Your task to perform on an android device: star an email in the gmail app Image 0: 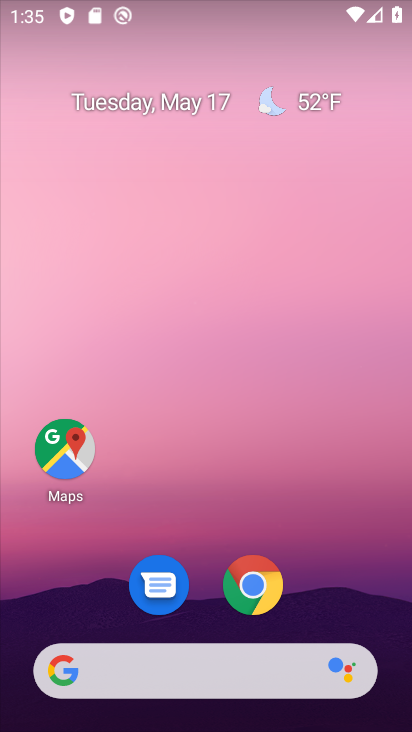
Step 0: drag from (253, 511) to (266, 70)
Your task to perform on an android device: star an email in the gmail app Image 1: 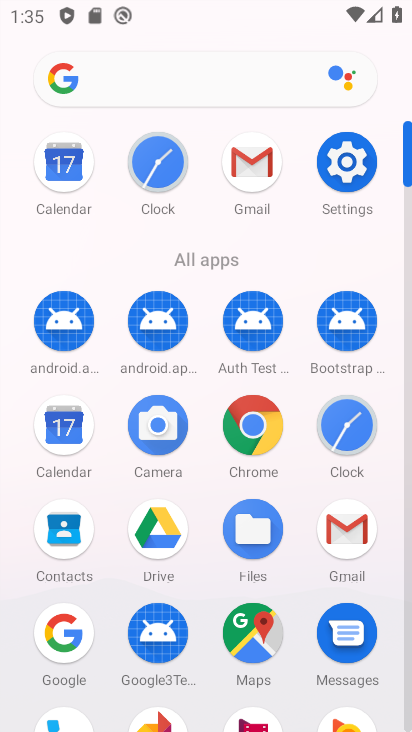
Step 1: click (262, 172)
Your task to perform on an android device: star an email in the gmail app Image 2: 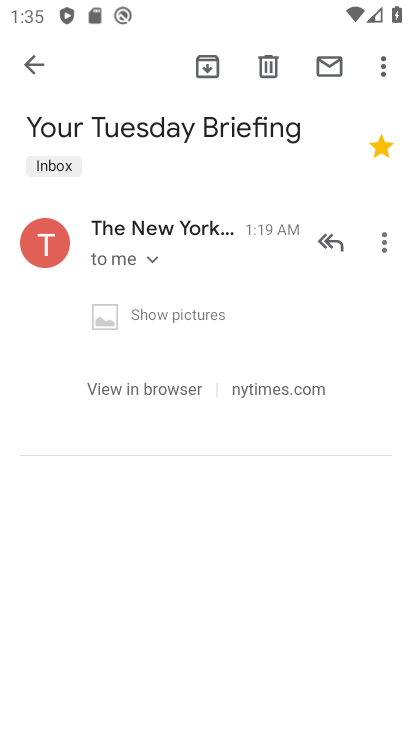
Step 2: click (40, 70)
Your task to perform on an android device: star an email in the gmail app Image 3: 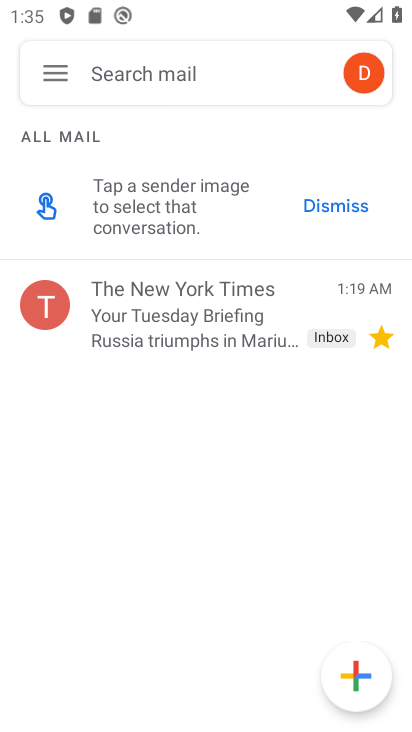
Step 3: click (48, 60)
Your task to perform on an android device: star an email in the gmail app Image 4: 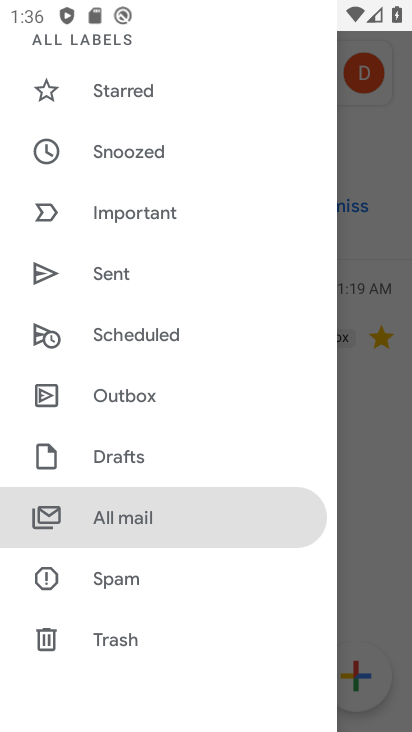
Step 4: click (137, 388)
Your task to perform on an android device: star an email in the gmail app Image 5: 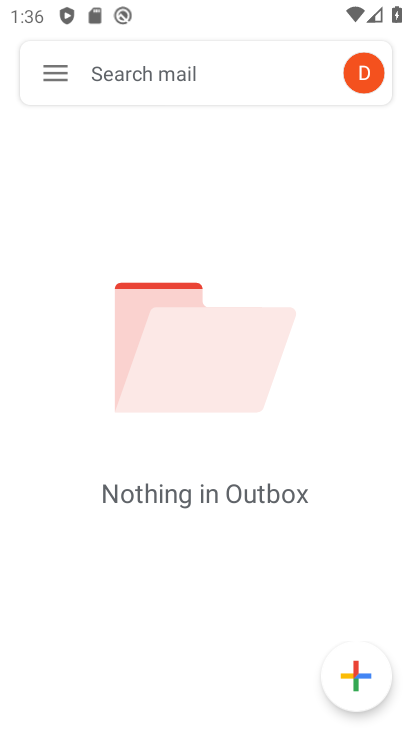
Step 5: click (63, 69)
Your task to perform on an android device: star an email in the gmail app Image 6: 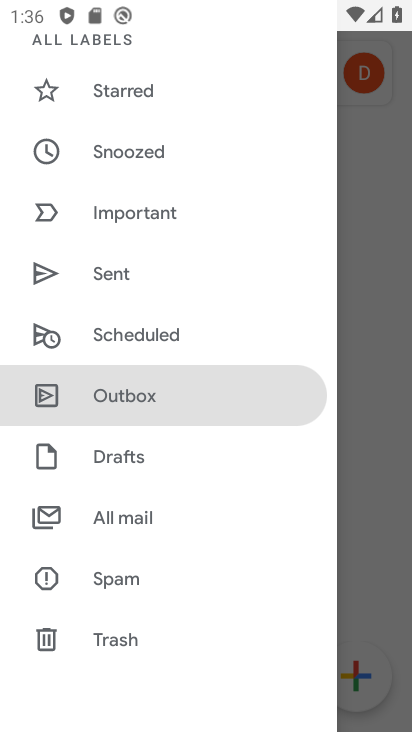
Step 6: click (140, 508)
Your task to perform on an android device: star an email in the gmail app Image 7: 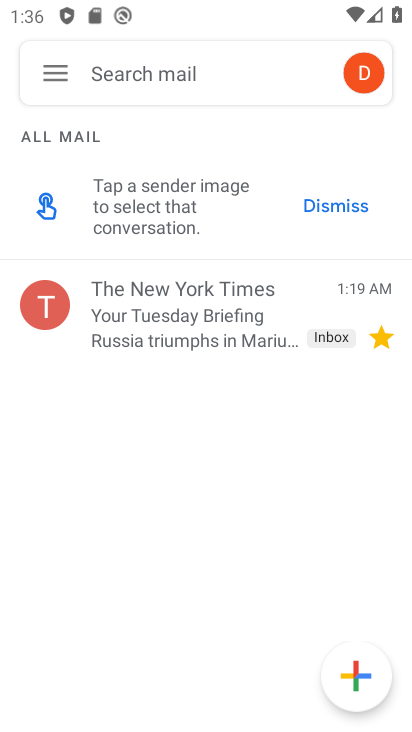
Step 7: task complete